Your task to perform on an android device: Go to eBay Image 0: 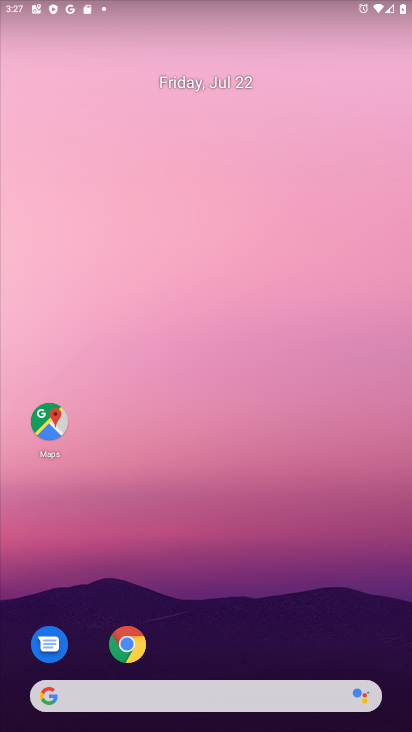
Step 0: click (122, 646)
Your task to perform on an android device: Go to eBay Image 1: 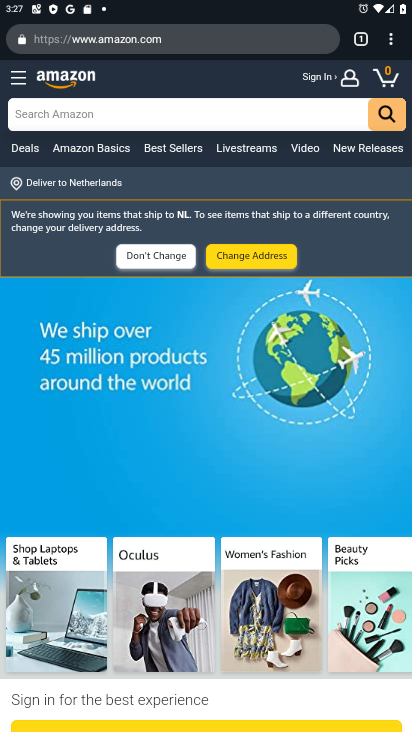
Step 1: click (402, 40)
Your task to perform on an android device: Go to eBay Image 2: 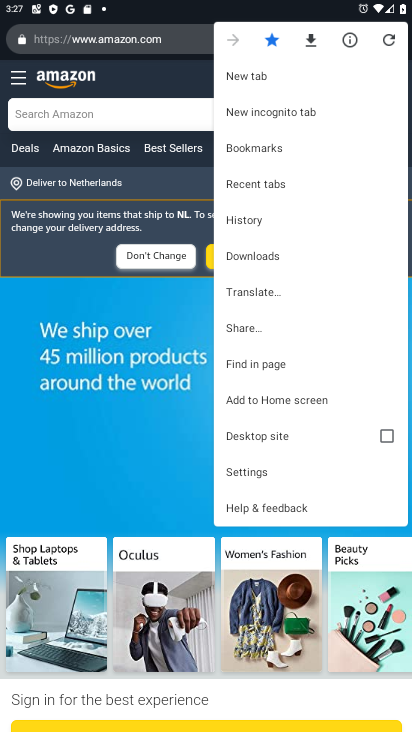
Step 2: click (264, 75)
Your task to perform on an android device: Go to eBay Image 3: 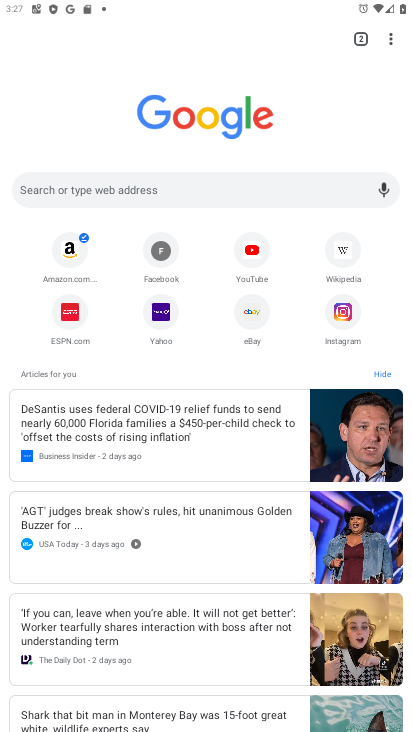
Step 3: click (251, 312)
Your task to perform on an android device: Go to eBay Image 4: 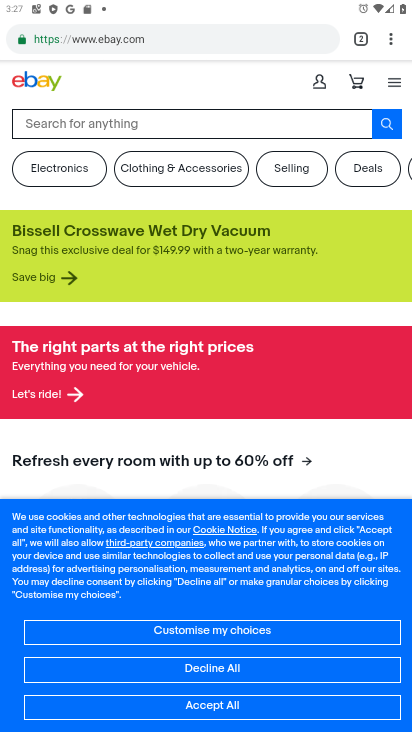
Step 4: task complete